Your task to perform on an android device: Look up the best rated Nike shoes on Nike.com Image 0: 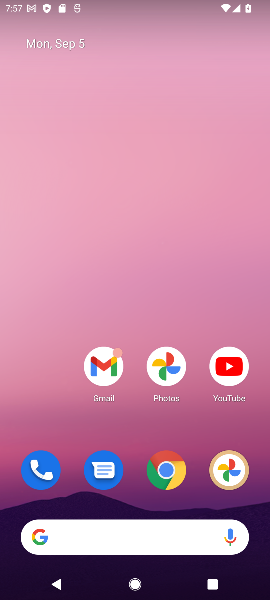
Step 0: click (163, 465)
Your task to perform on an android device: Look up the best rated Nike shoes on Nike.com Image 1: 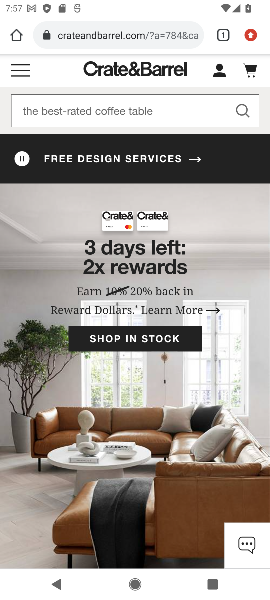
Step 1: click (224, 30)
Your task to perform on an android device: Look up the best rated Nike shoes on Nike.com Image 2: 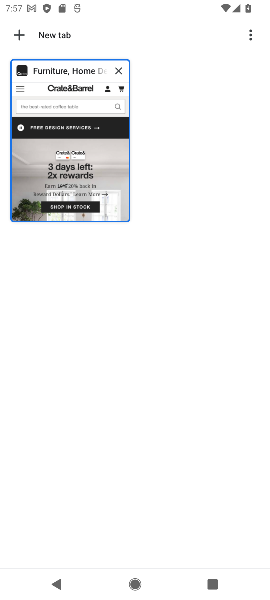
Step 2: click (21, 34)
Your task to perform on an android device: Look up the best rated Nike shoes on Nike.com Image 3: 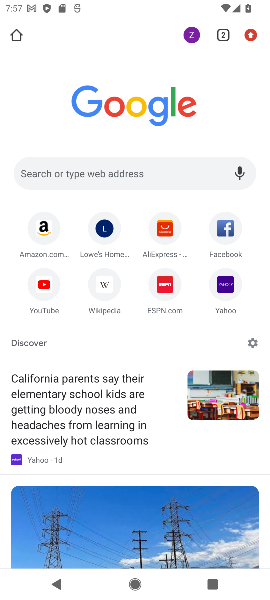
Step 3: click (104, 175)
Your task to perform on an android device: Look up the best rated Nike shoes on Nike.com Image 4: 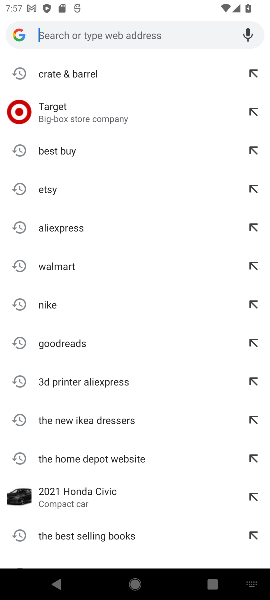
Step 4: type "Nike.com"
Your task to perform on an android device: Look up the best rated Nike shoes on Nike.com Image 5: 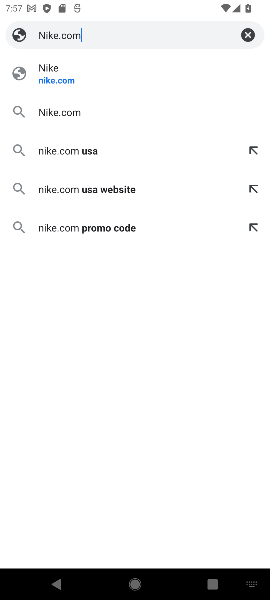
Step 5: click (55, 68)
Your task to perform on an android device: Look up the best rated Nike shoes on Nike.com Image 6: 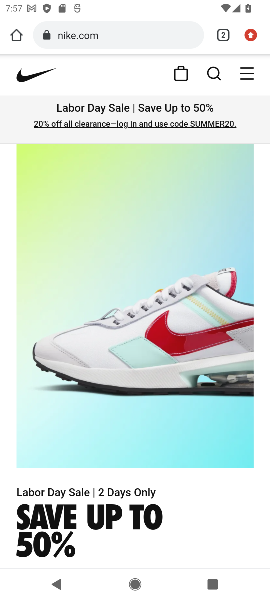
Step 6: click (209, 66)
Your task to perform on an android device: Look up the best rated Nike shoes on Nike.com Image 7: 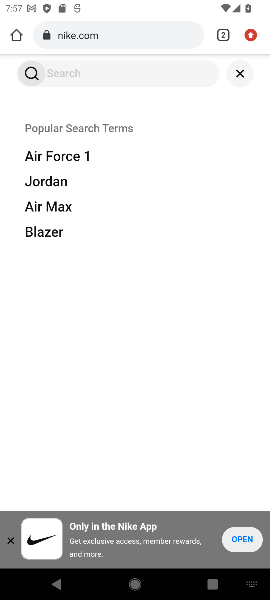
Step 7: type "the best rated Nike shoes"
Your task to perform on an android device: Look up the best rated Nike shoes on Nike.com Image 8: 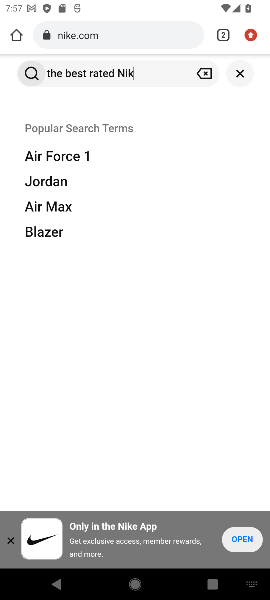
Step 8: type ""
Your task to perform on an android device: Look up the best rated Nike shoes on Nike.com Image 9: 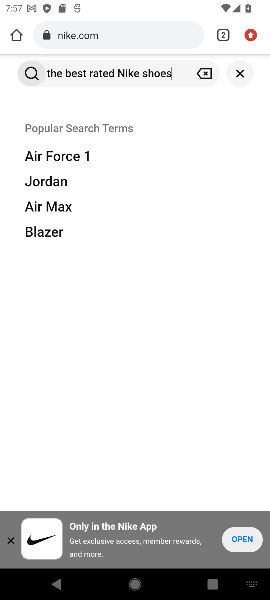
Step 9: click (30, 68)
Your task to perform on an android device: Look up the best rated Nike shoes on Nike.com Image 10: 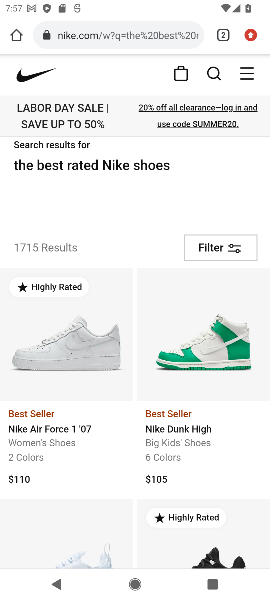
Step 10: task complete